Your task to perform on an android device: turn off improve location accuracy Image 0: 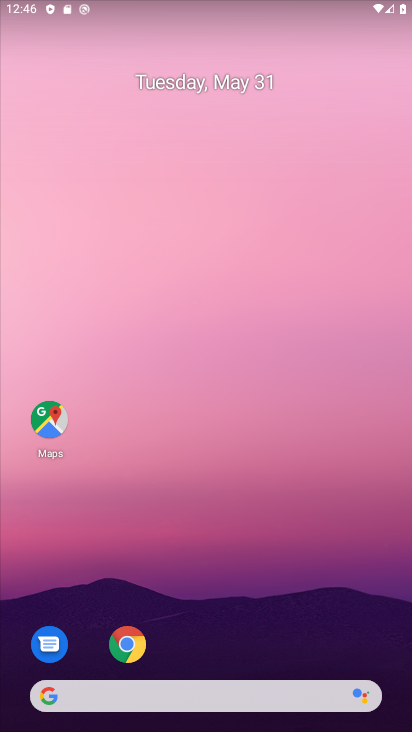
Step 0: drag from (243, 640) to (288, 299)
Your task to perform on an android device: turn off improve location accuracy Image 1: 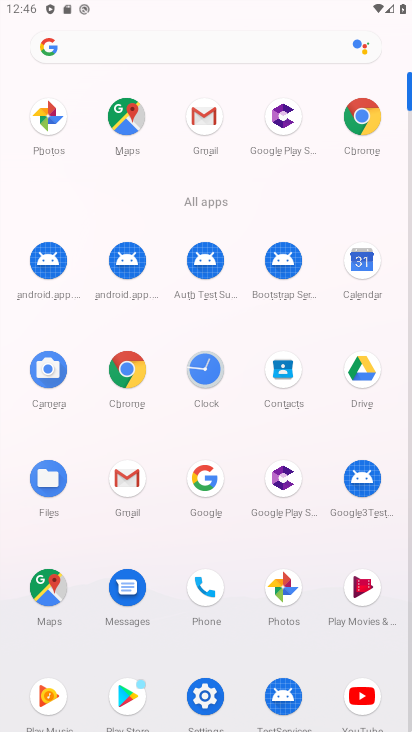
Step 1: click (205, 697)
Your task to perform on an android device: turn off improve location accuracy Image 2: 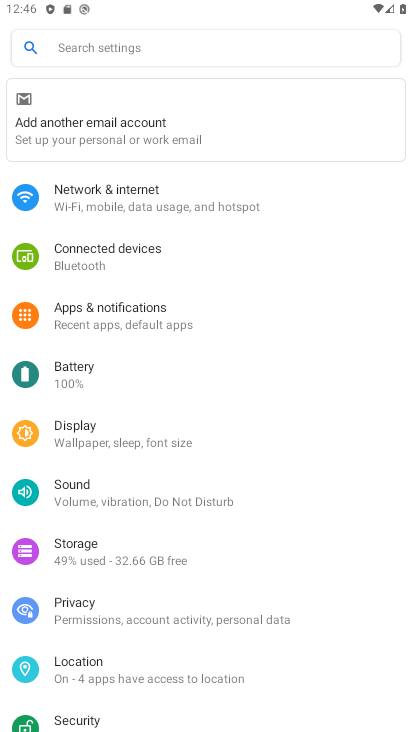
Step 2: click (166, 322)
Your task to perform on an android device: turn off improve location accuracy Image 3: 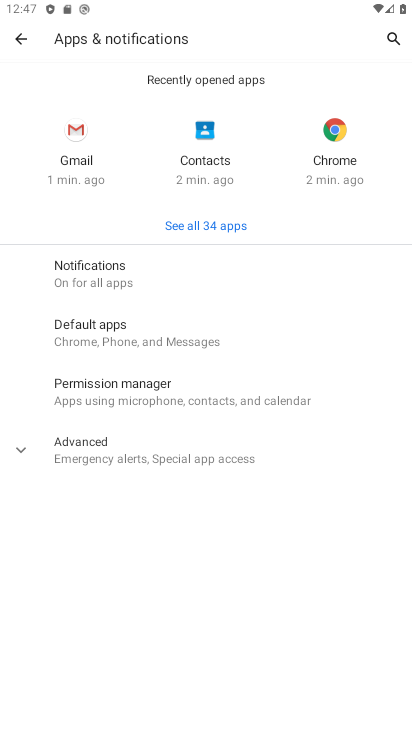
Step 3: press back button
Your task to perform on an android device: turn off improve location accuracy Image 4: 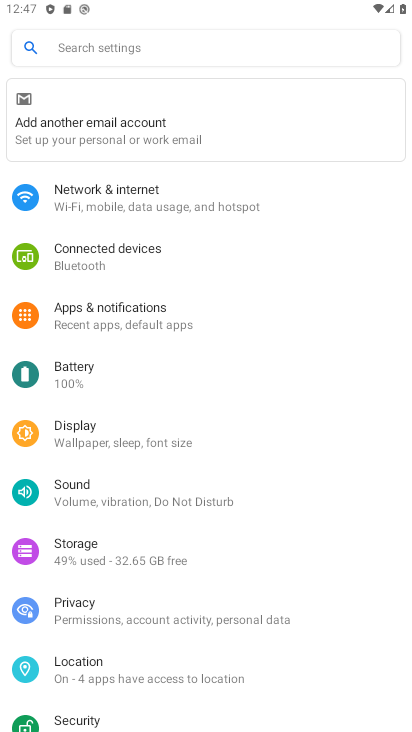
Step 4: click (109, 656)
Your task to perform on an android device: turn off improve location accuracy Image 5: 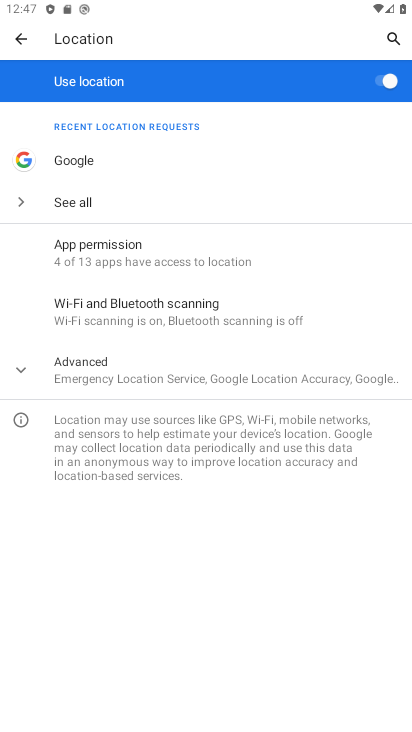
Step 5: click (35, 368)
Your task to perform on an android device: turn off improve location accuracy Image 6: 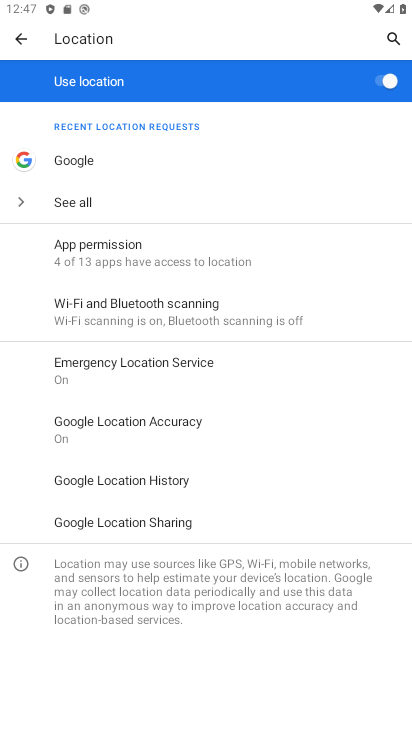
Step 6: click (187, 424)
Your task to perform on an android device: turn off improve location accuracy Image 7: 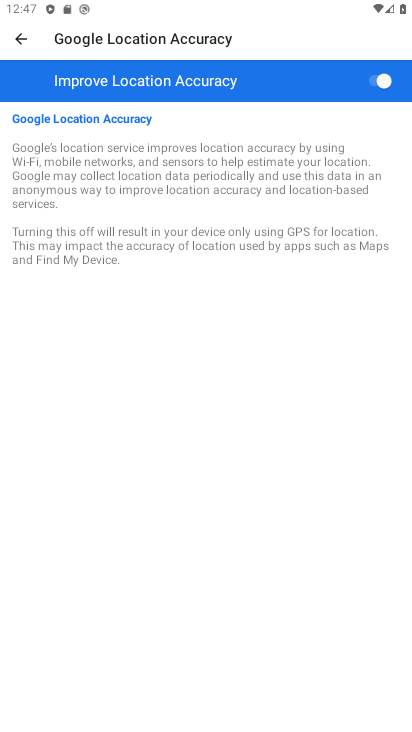
Step 7: click (378, 83)
Your task to perform on an android device: turn off improve location accuracy Image 8: 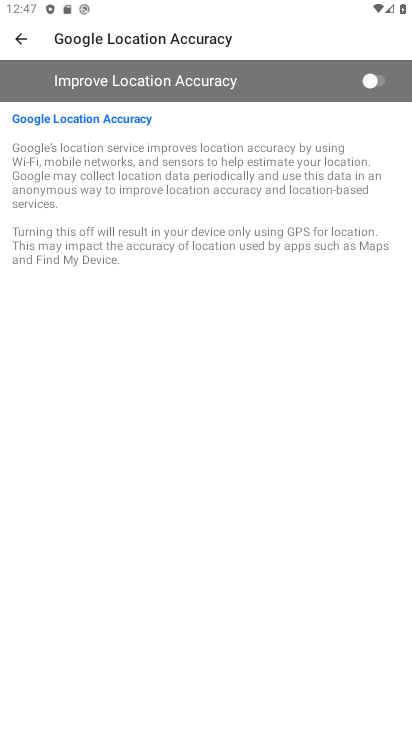
Step 8: task complete